Your task to perform on an android device: install app "Google Sheets" Image 0: 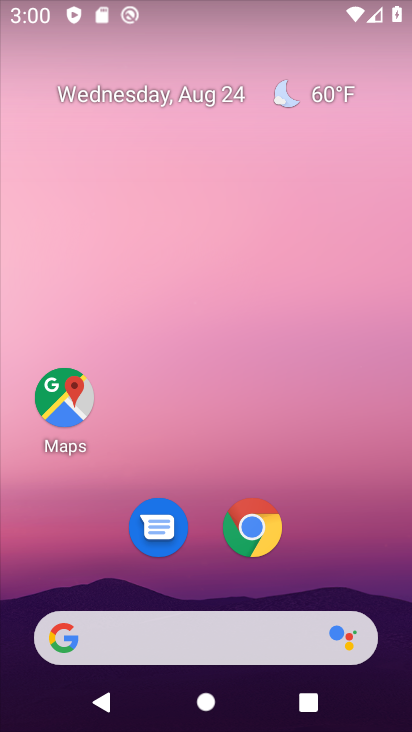
Step 0: drag from (299, 586) to (237, 29)
Your task to perform on an android device: install app "Google Sheets" Image 1: 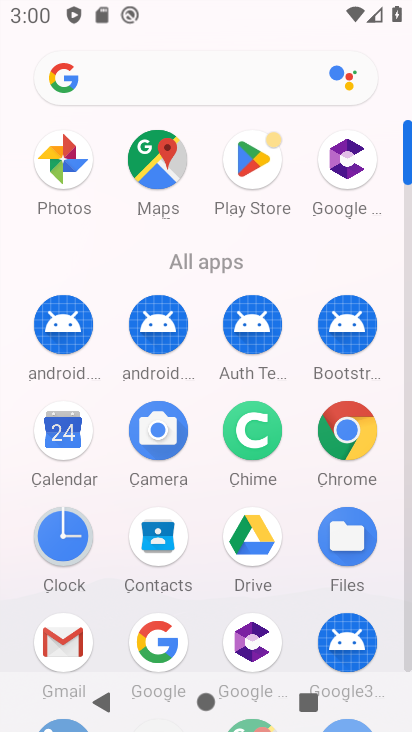
Step 1: click (249, 145)
Your task to perform on an android device: install app "Google Sheets" Image 2: 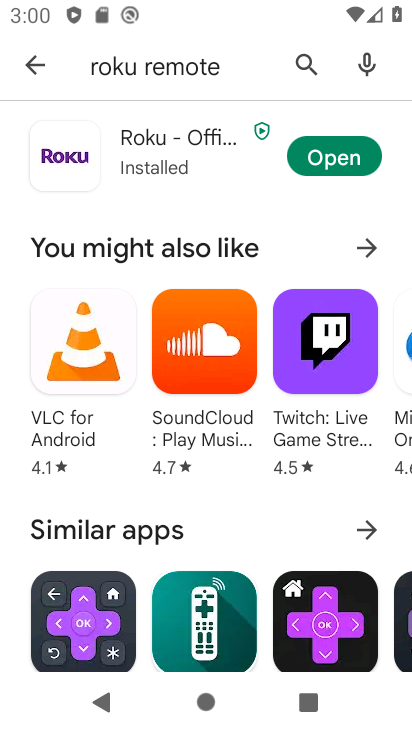
Step 2: click (317, 50)
Your task to perform on an android device: install app "Google Sheets" Image 3: 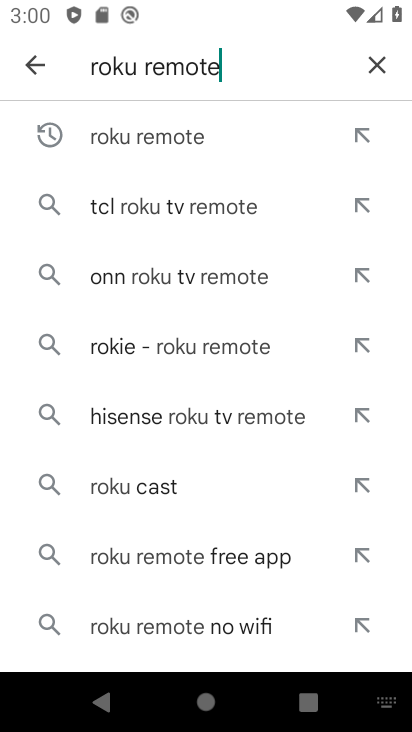
Step 3: click (366, 58)
Your task to perform on an android device: install app "Google Sheets" Image 4: 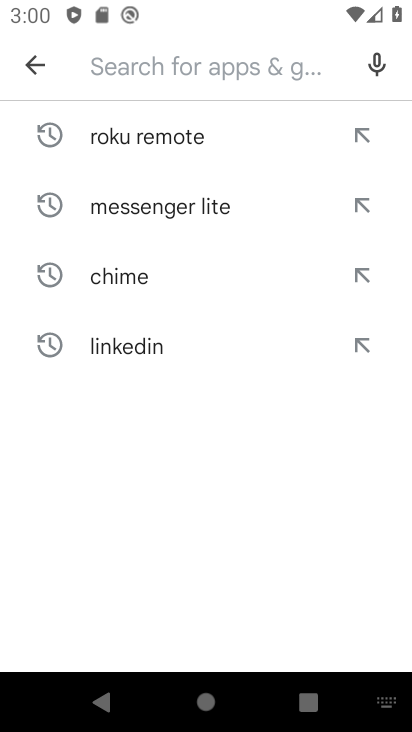
Step 4: type "goolge sheet"
Your task to perform on an android device: install app "Google Sheets" Image 5: 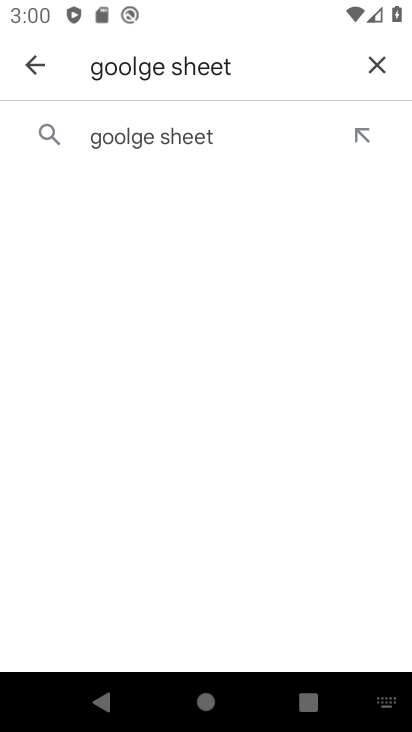
Step 5: click (126, 131)
Your task to perform on an android device: install app "Google Sheets" Image 6: 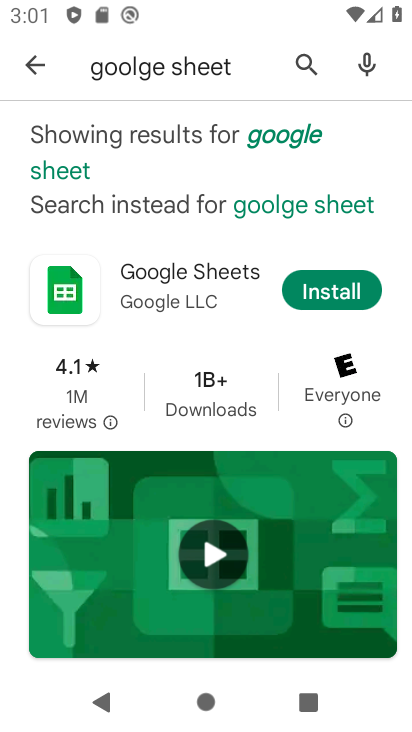
Step 6: click (127, 131)
Your task to perform on an android device: install app "Google Sheets" Image 7: 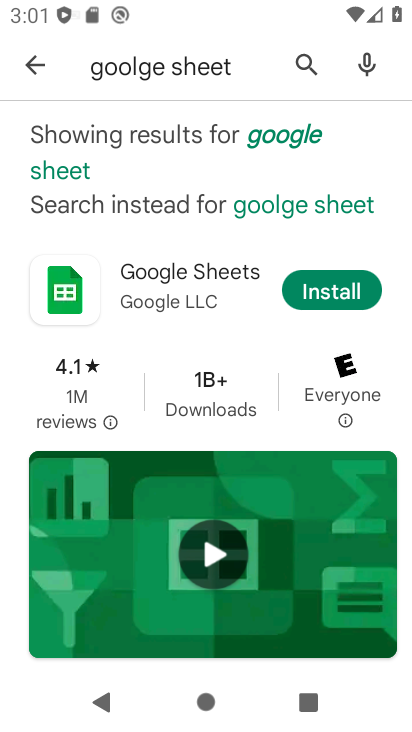
Step 7: click (341, 282)
Your task to perform on an android device: install app "Google Sheets" Image 8: 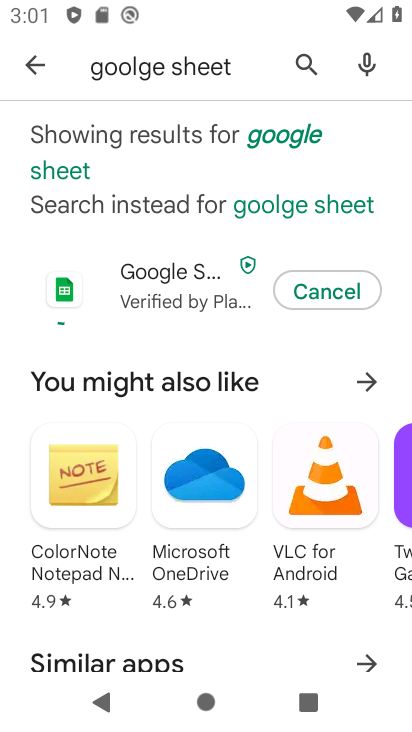
Step 8: task complete